Your task to perform on an android device: Open CNN.com Image 0: 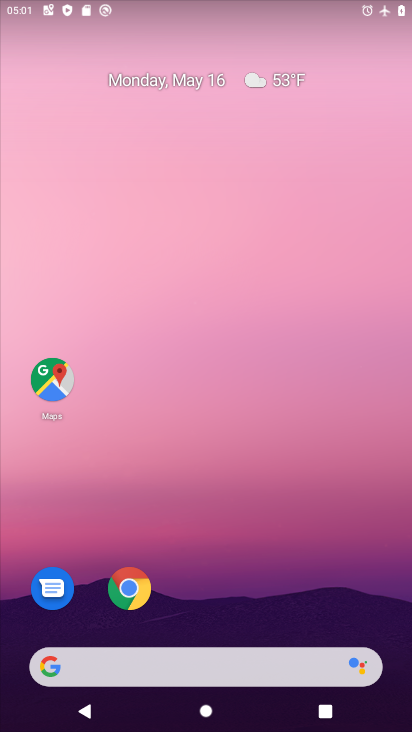
Step 0: drag from (208, 592) to (249, 55)
Your task to perform on an android device: Open CNN.com Image 1: 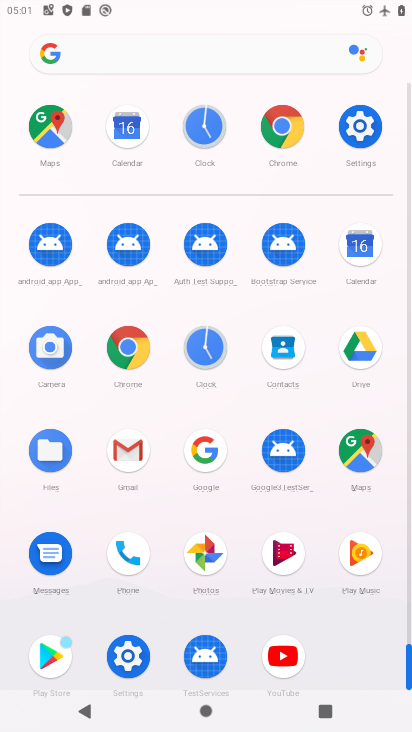
Step 1: click (128, 338)
Your task to perform on an android device: Open CNN.com Image 2: 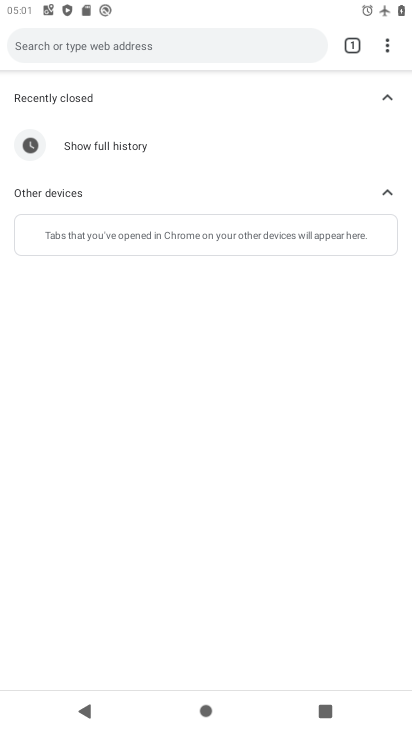
Step 2: click (194, 53)
Your task to perform on an android device: Open CNN.com Image 3: 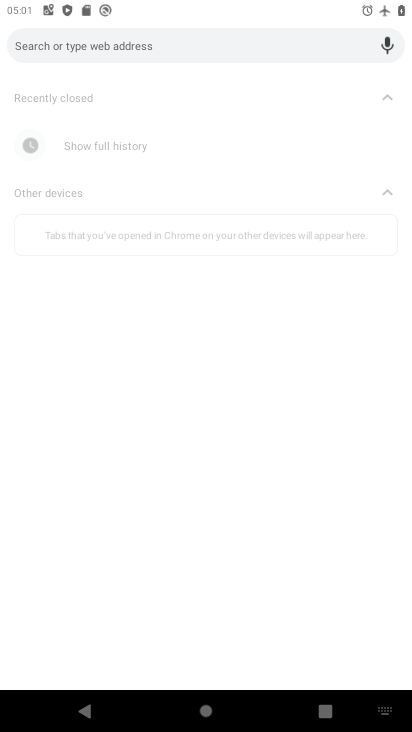
Step 3: type "CNN.com"
Your task to perform on an android device: Open CNN.com Image 4: 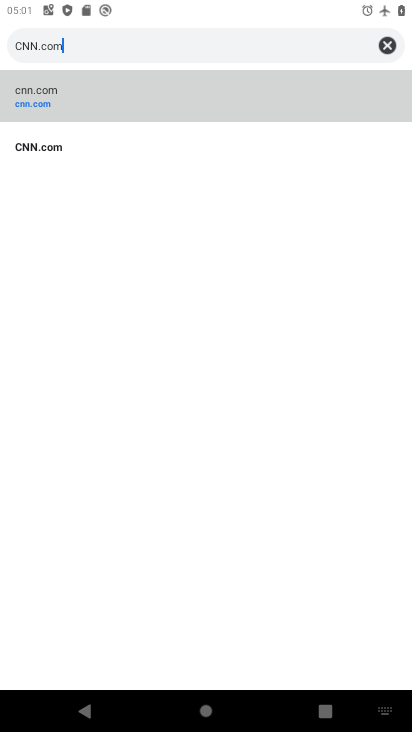
Step 4: type ""
Your task to perform on an android device: Open CNN.com Image 5: 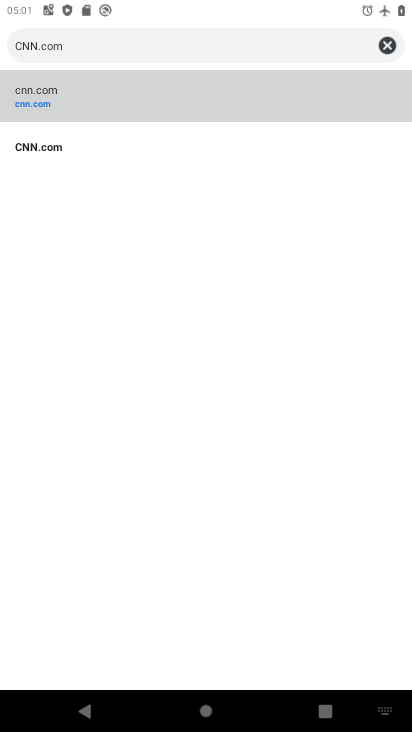
Step 5: click (178, 90)
Your task to perform on an android device: Open CNN.com Image 6: 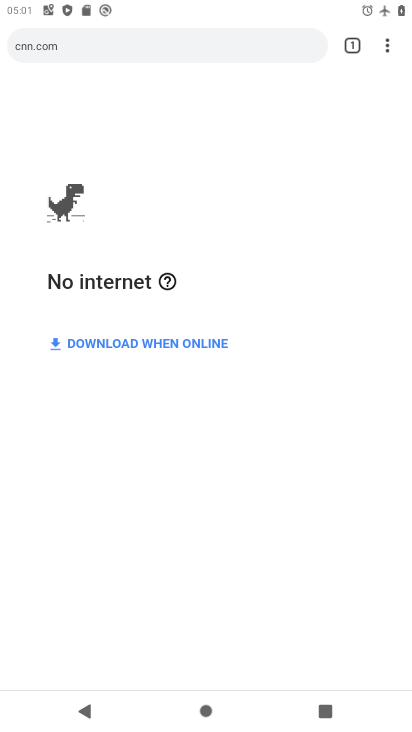
Step 6: task complete